Your task to perform on an android device: snooze an email in the gmail app Image 0: 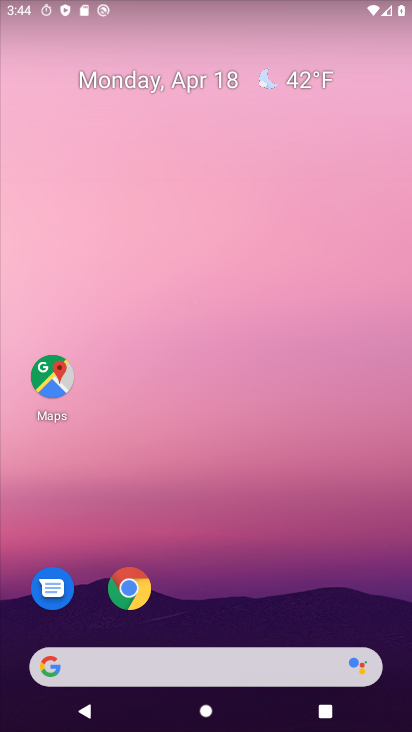
Step 0: drag from (198, 610) to (140, 112)
Your task to perform on an android device: snooze an email in the gmail app Image 1: 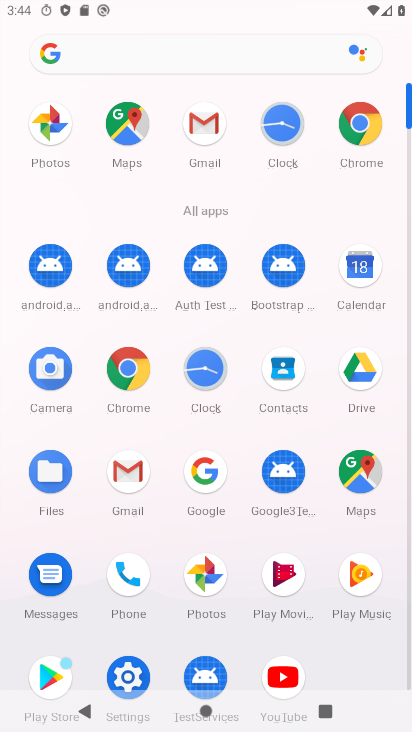
Step 1: click (193, 135)
Your task to perform on an android device: snooze an email in the gmail app Image 2: 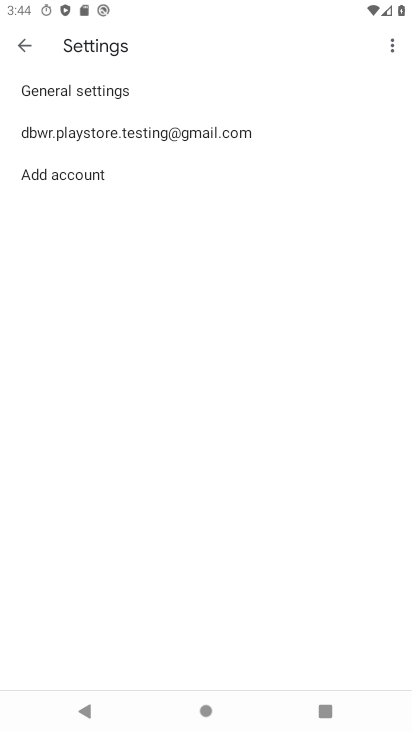
Step 2: press back button
Your task to perform on an android device: snooze an email in the gmail app Image 3: 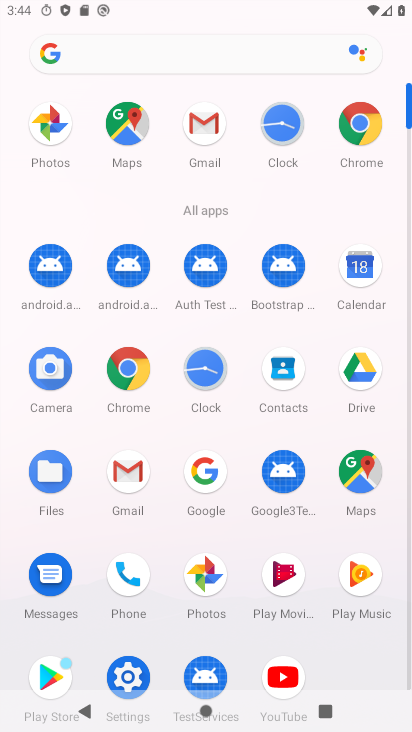
Step 3: click (201, 118)
Your task to perform on an android device: snooze an email in the gmail app Image 4: 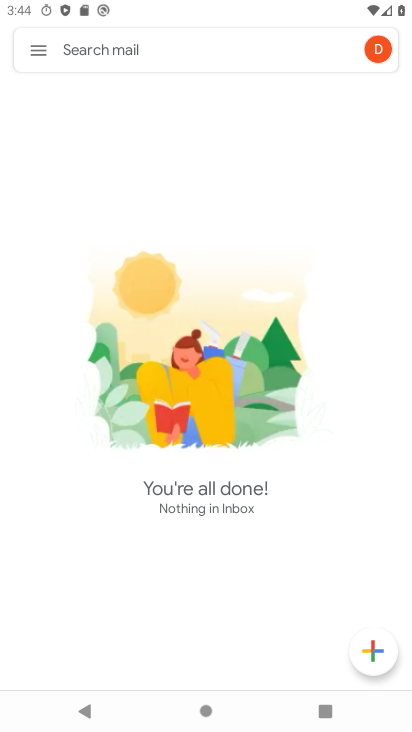
Step 4: click (48, 49)
Your task to perform on an android device: snooze an email in the gmail app Image 5: 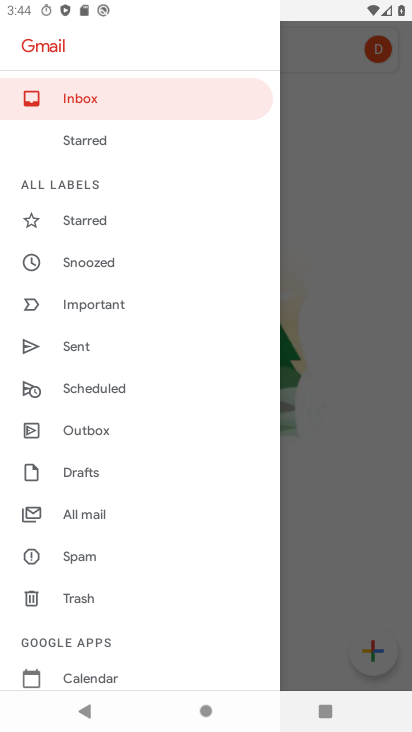
Step 5: drag from (111, 620) to (144, 31)
Your task to perform on an android device: snooze an email in the gmail app Image 6: 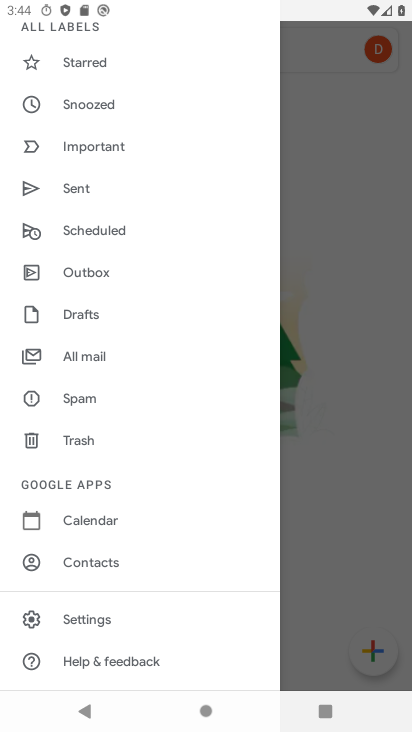
Step 6: click (78, 608)
Your task to perform on an android device: snooze an email in the gmail app Image 7: 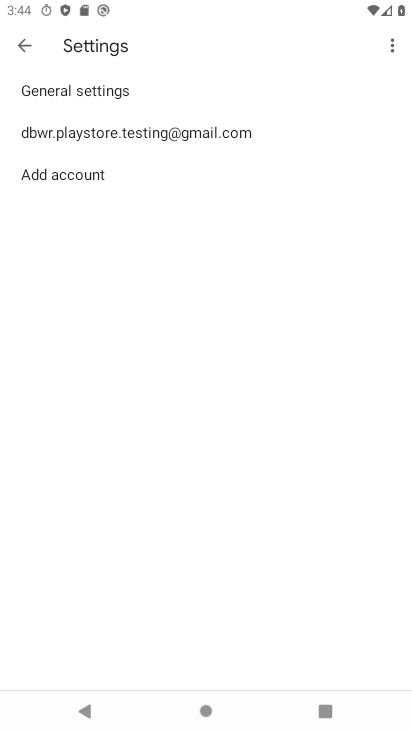
Step 7: task complete